Your task to perform on an android device: Go to accessibility settings Image 0: 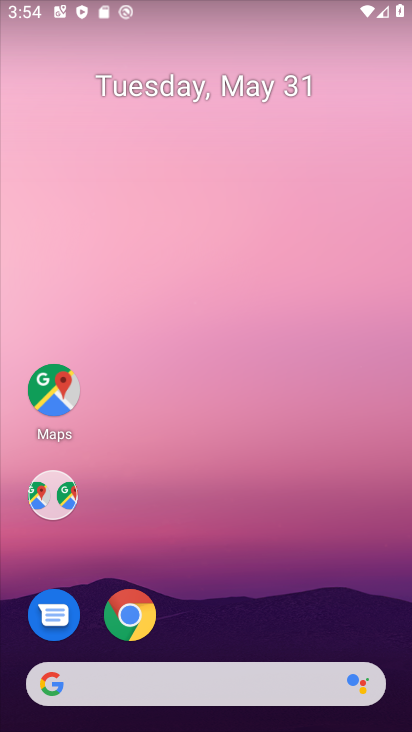
Step 0: drag from (297, 708) to (181, 151)
Your task to perform on an android device: Go to accessibility settings Image 1: 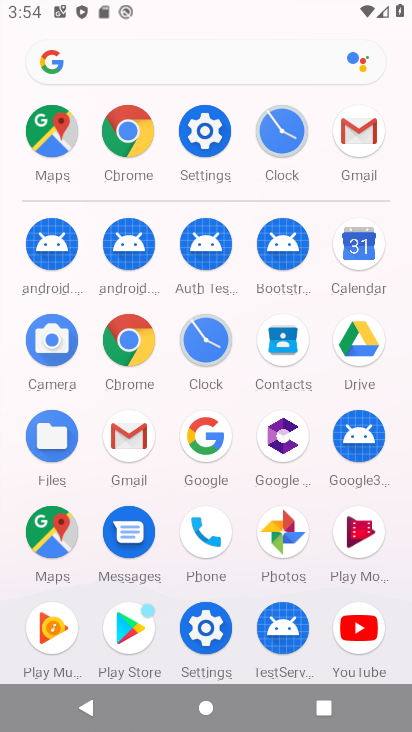
Step 1: click (206, 137)
Your task to perform on an android device: Go to accessibility settings Image 2: 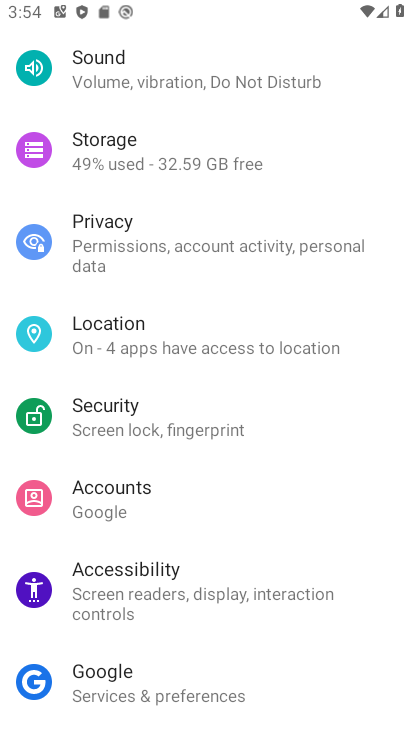
Step 2: click (114, 581)
Your task to perform on an android device: Go to accessibility settings Image 3: 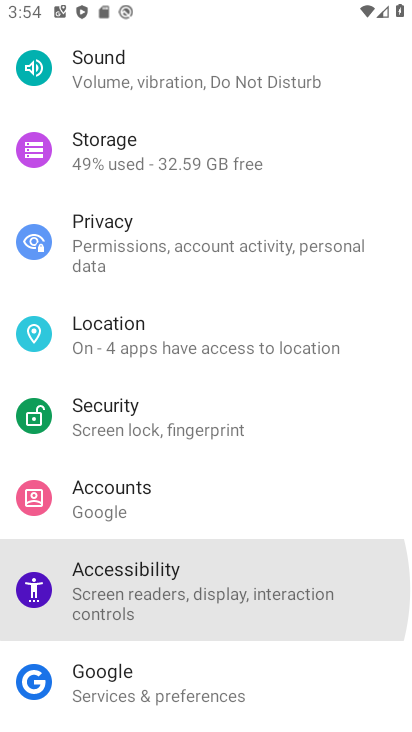
Step 3: click (114, 581)
Your task to perform on an android device: Go to accessibility settings Image 4: 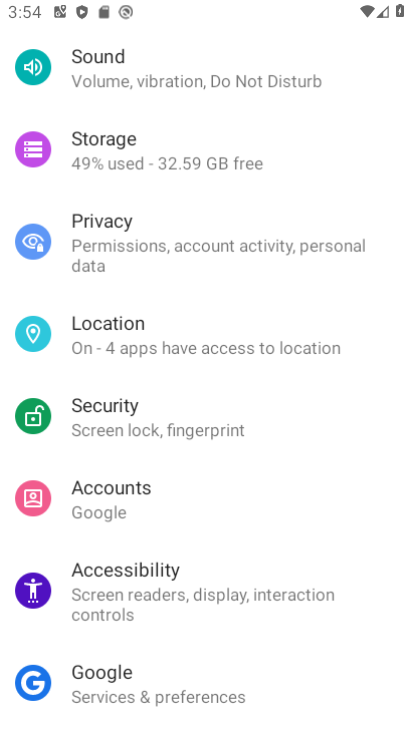
Step 4: click (114, 581)
Your task to perform on an android device: Go to accessibility settings Image 5: 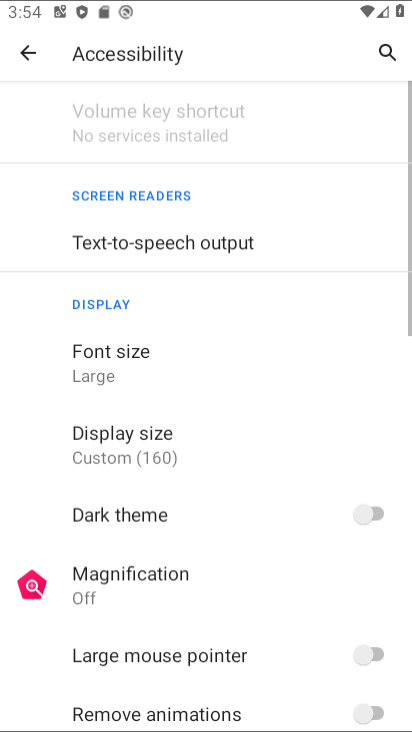
Step 5: click (114, 581)
Your task to perform on an android device: Go to accessibility settings Image 6: 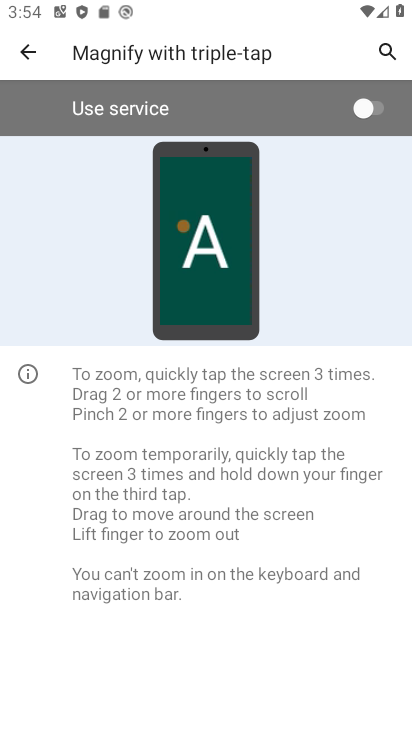
Step 6: click (30, 49)
Your task to perform on an android device: Go to accessibility settings Image 7: 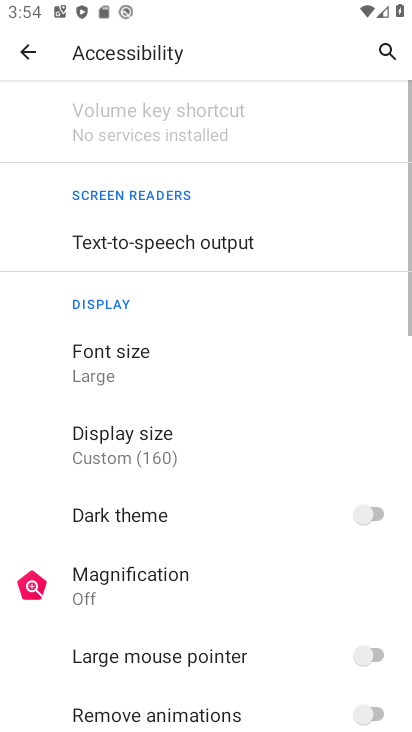
Step 7: drag from (191, 324) to (202, 126)
Your task to perform on an android device: Go to accessibility settings Image 8: 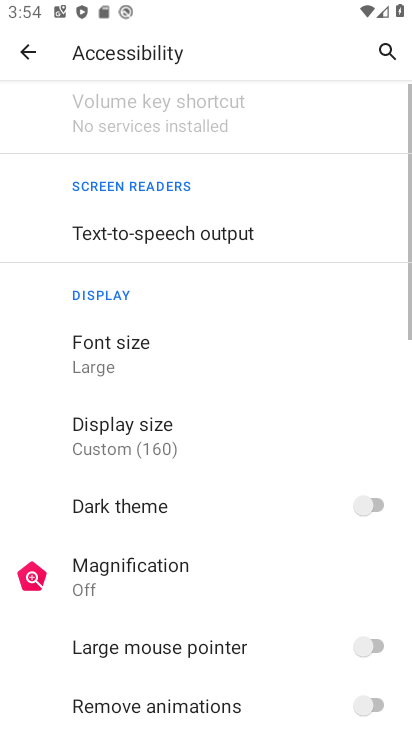
Step 8: drag from (226, 553) to (198, 191)
Your task to perform on an android device: Go to accessibility settings Image 9: 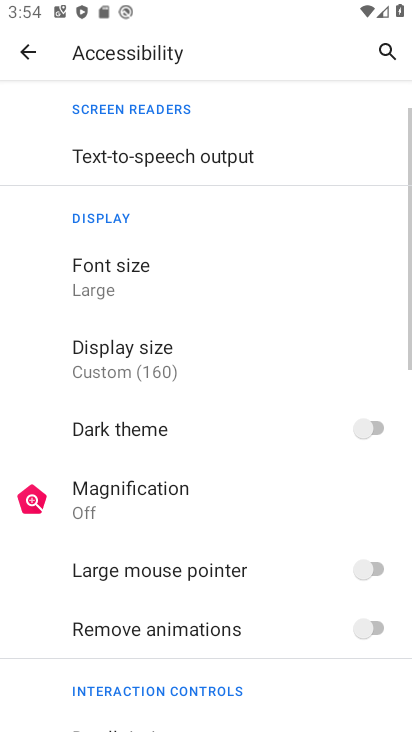
Step 9: click (25, 56)
Your task to perform on an android device: Go to accessibility settings Image 10: 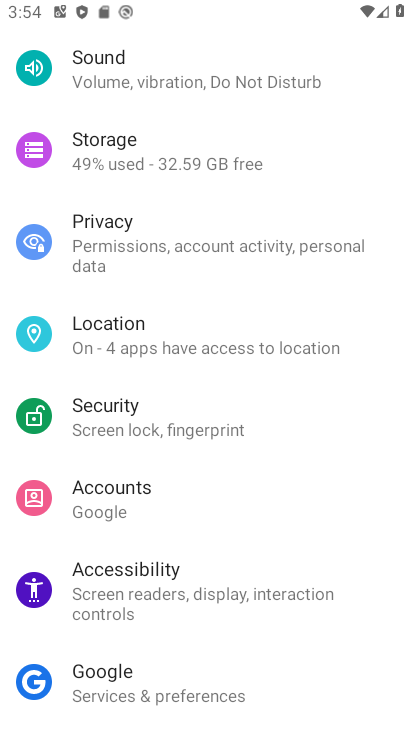
Step 10: task complete